Your task to perform on an android device: turn on priority inbox in the gmail app Image 0: 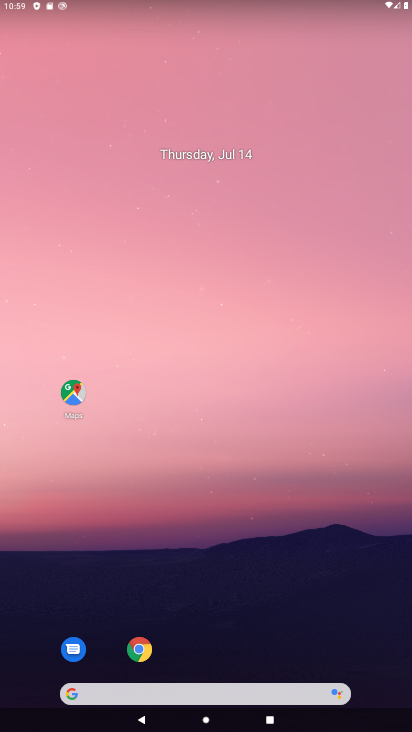
Step 0: drag from (190, 401) to (162, 115)
Your task to perform on an android device: turn on priority inbox in the gmail app Image 1: 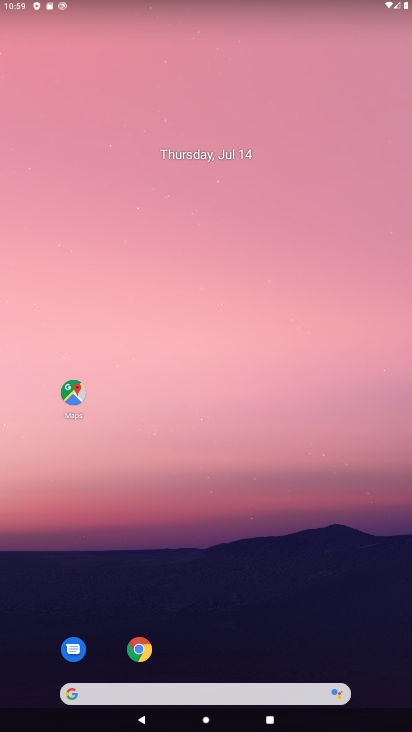
Step 1: drag from (191, 530) to (88, 6)
Your task to perform on an android device: turn on priority inbox in the gmail app Image 2: 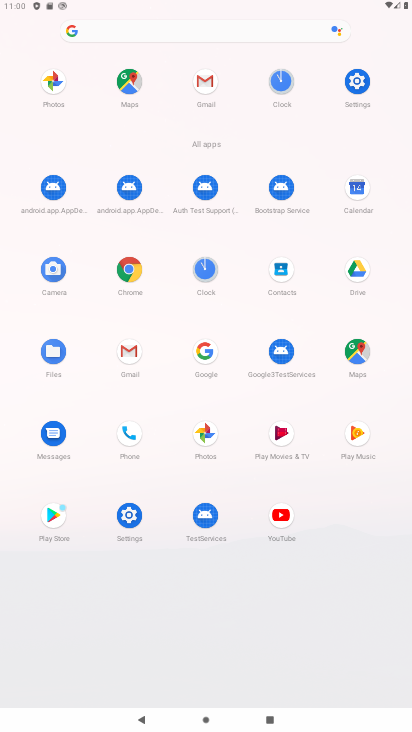
Step 2: click (197, 92)
Your task to perform on an android device: turn on priority inbox in the gmail app Image 3: 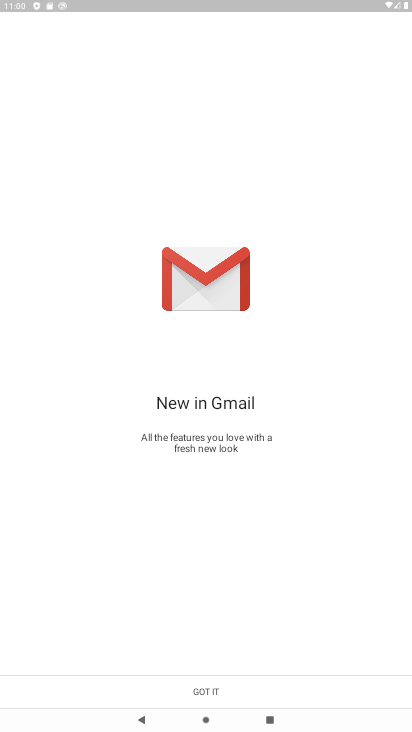
Step 3: click (221, 683)
Your task to perform on an android device: turn on priority inbox in the gmail app Image 4: 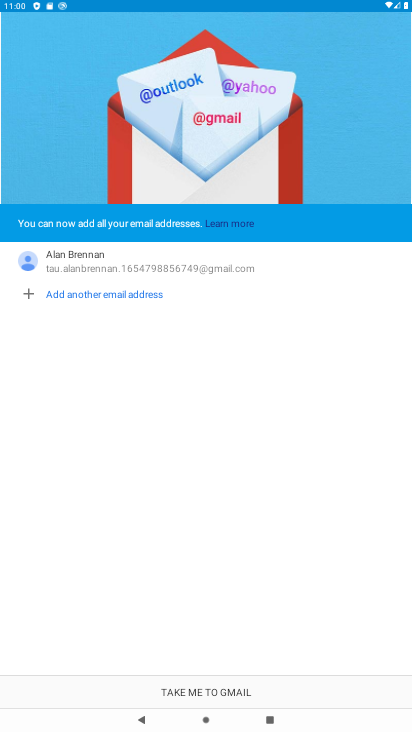
Step 4: click (221, 683)
Your task to perform on an android device: turn on priority inbox in the gmail app Image 5: 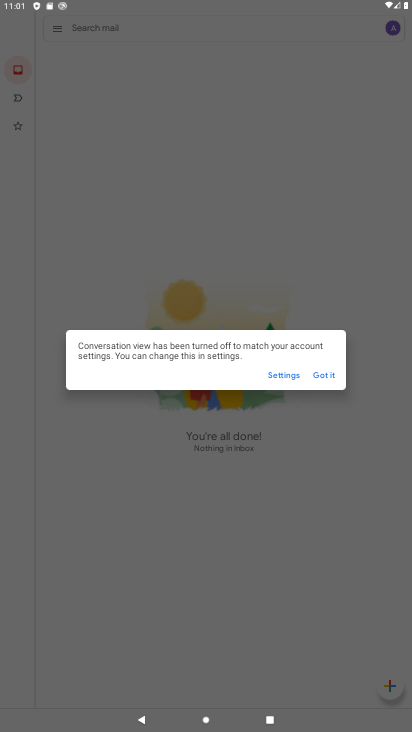
Step 5: press home button
Your task to perform on an android device: turn on priority inbox in the gmail app Image 6: 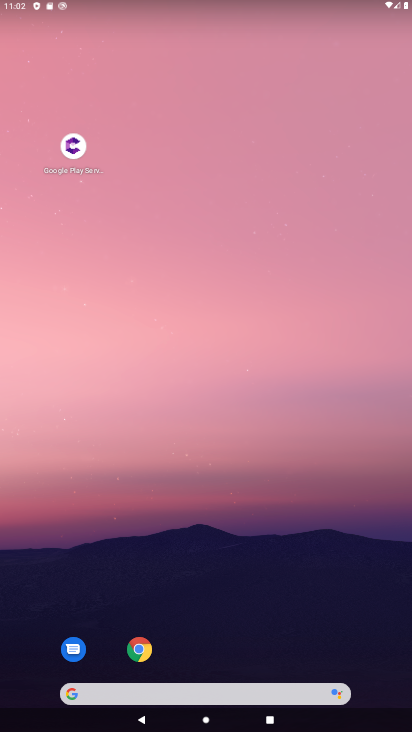
Step 6: click (183, 256)
Your task to perform on an android device: turn on priority inbox in the gmail app Image 7: 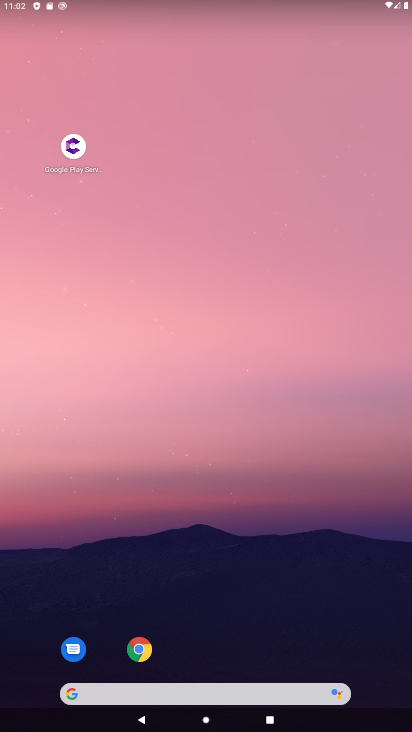
Step 7: drag from (181, 423) to (175, 359)
Your task to perform on an android device: turn on priority inbox in the gmail app Image 8: 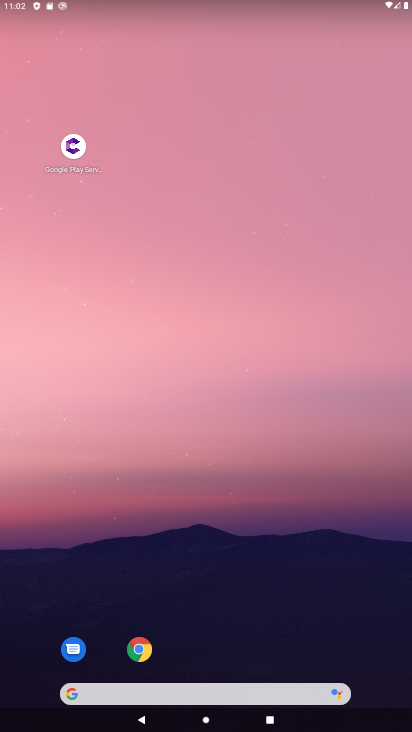
Step 8: drag from (225, 627) to (225, 145)
Your task to perform on an android device: turn on priority inbox in the gmail app Image 9: 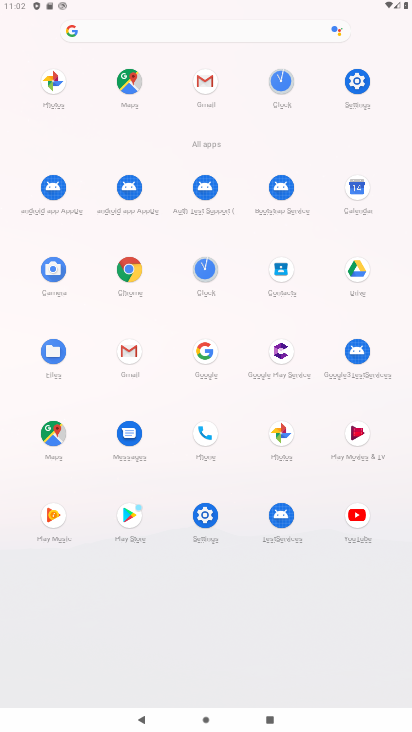
Step 9: click (204, 91)
Your task to perform on an android device: turn on priority inbox in the gmail app Image 10: 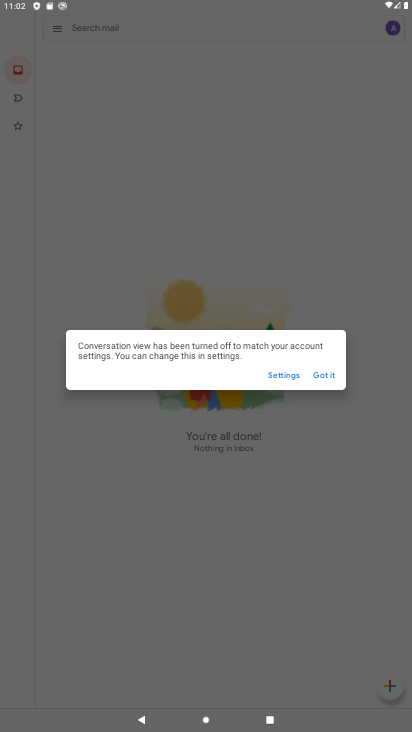
Step 10: click (324, 378)
Your task to perform on an android device: turn on priority inbox in the gmail app Image 11: 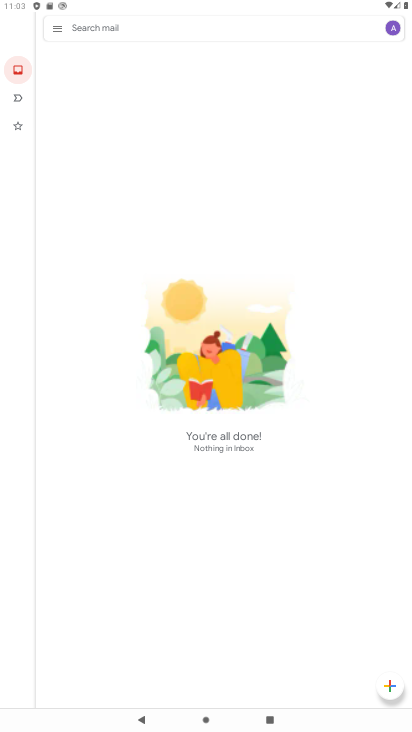
Step 11: click (51, 28)
Your task to perform on an android device: turn on priority inbox in the gmail app Image 12: 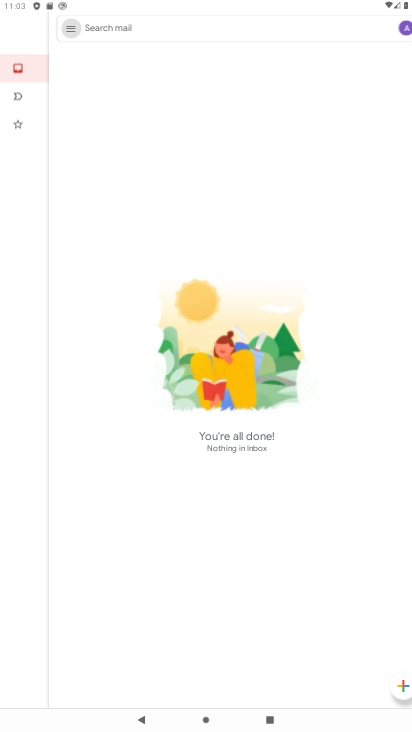
Step 12: click (51, 28)
Your task to perform on an android device: turn on priority inbox in the gmail app Image 13: 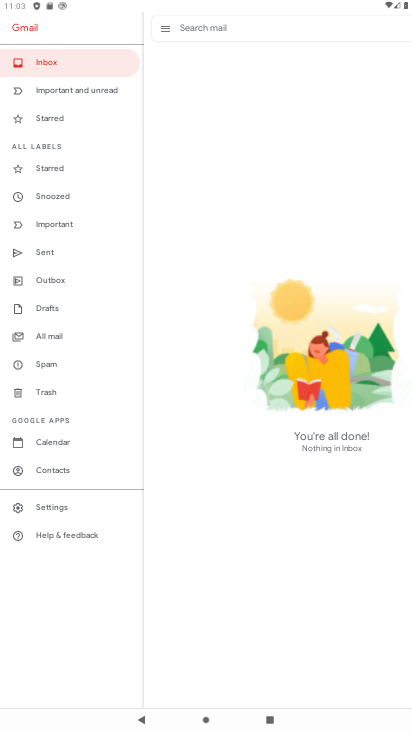
Step 13: click (38, 511)
Your task to perform on an android device: turn on priority inbox in the gmail app Image 14: 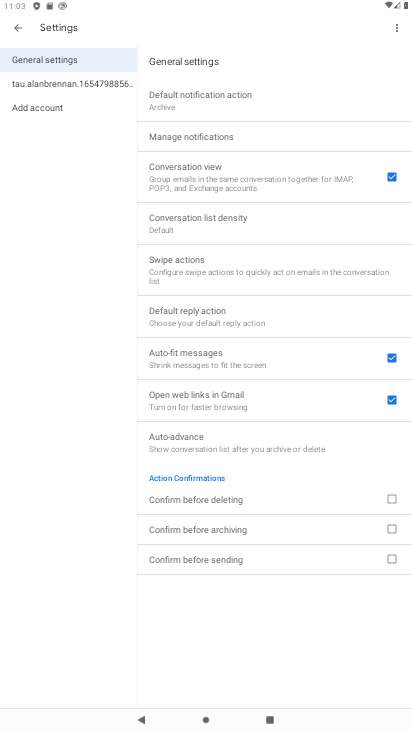
Step 14: click (75, 80)
Your task to perform on an android device: turn on priority inbox in the gmail app Image 15: 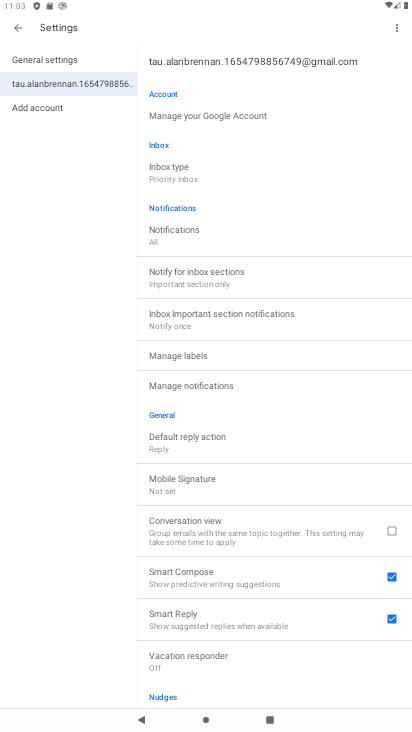
Step 15: click (180, 167)
Your task to perform on an android device: turn on priority inbox in the gmail app Image 16: 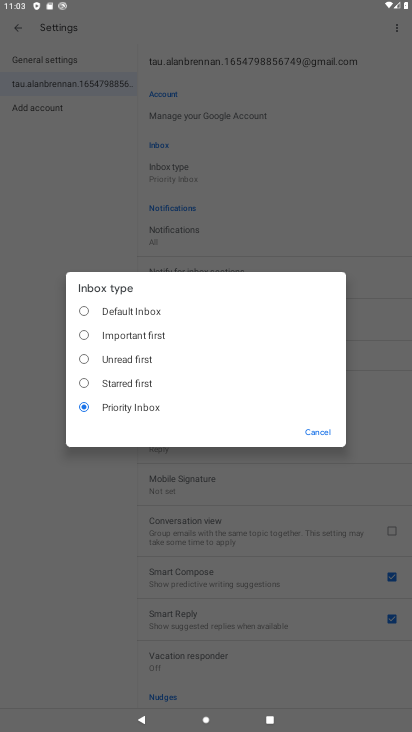
Step 16: task complete